Your task to perform on an android device: move a message to another label in the gmail app Image 0: 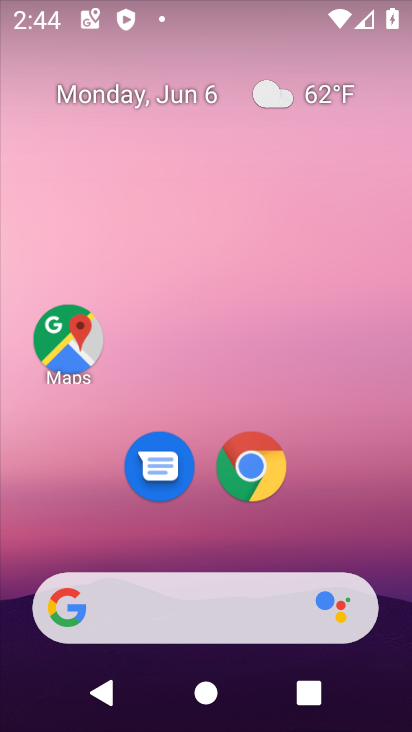
Step 0: drag from (208, 583) to (171, 323)
Your task to perform on an android device: move a message to another label in the gmail app Image 1: 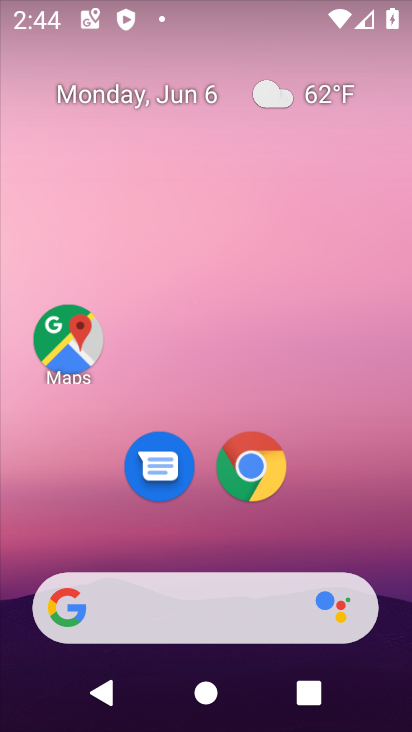
Step 1: drag from (244, 675) to (191, 283)
Your task to perform on an android device: move a message to another label in the gmail app Image 2: 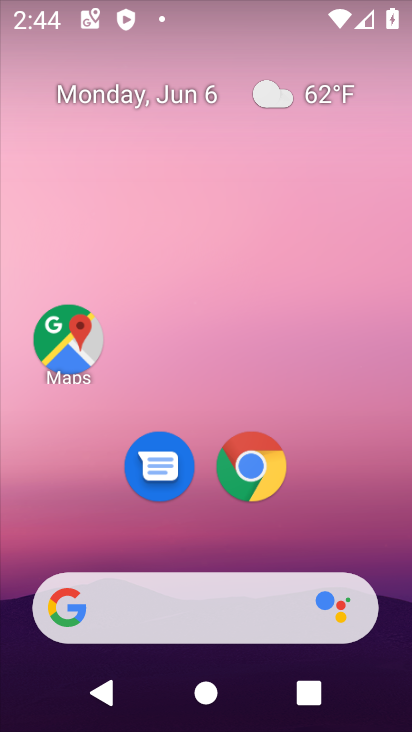
Step 2: drag from (233, 693) to (149, 44)
Your task to perform on an android device: move a message to another label in the gmail app Image 3: 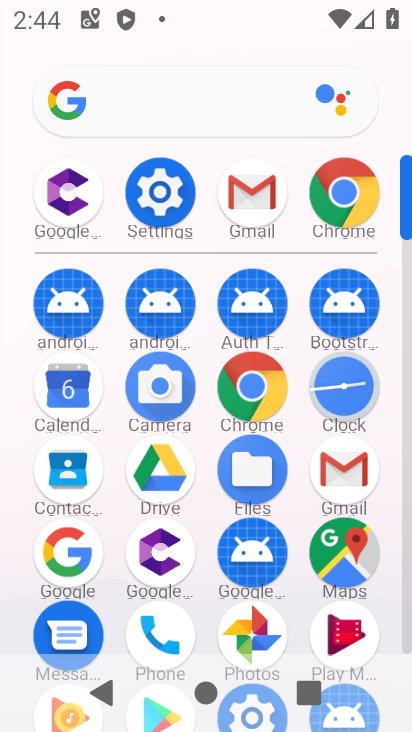
Step 3: click (239, 209)
Your task to perform on an android device: move a message to another label in the gmail app Image 4: 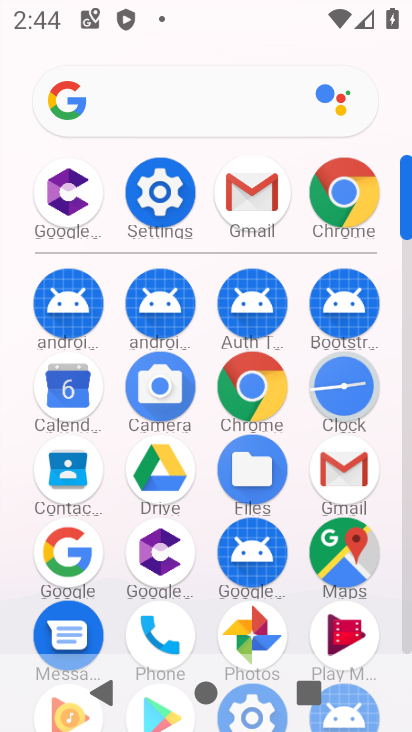
Step 4: click (238, 211)
Your task to perform on an android device: move a message to another label in the gmail app Image 5: 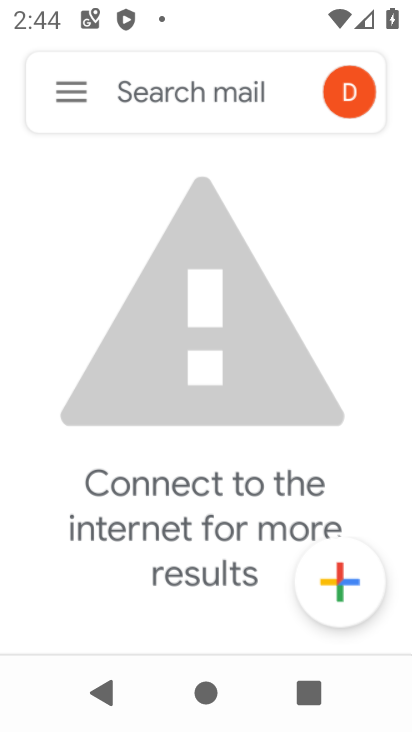
Step 5: click (236, 201)
Your task to perform on an android device: move a message to another label in the gmail app Image 6: 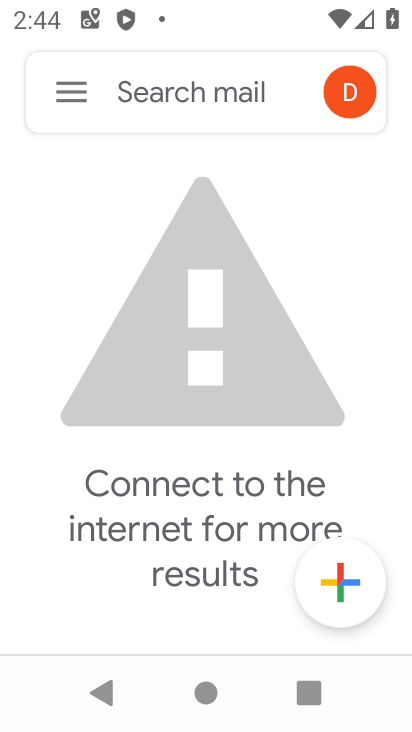
Step 6: click (86, 100)
Your task to perform on an android device: move a message to another label in the gmail app Image 7: 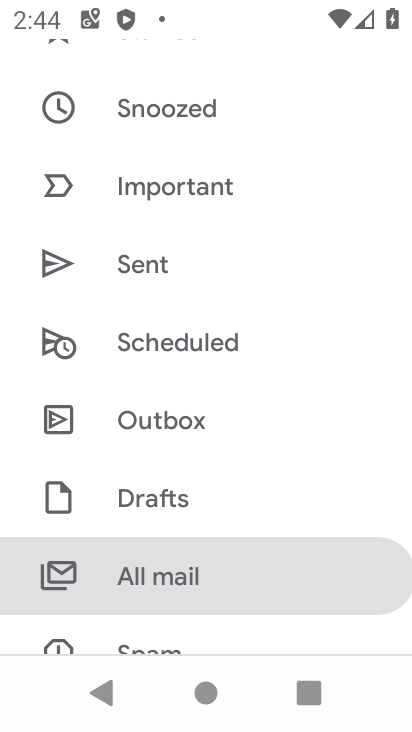
Step 7: click (184, 580)
Your task to perform on an android device: move a message to another label in the gmail app Image 8: 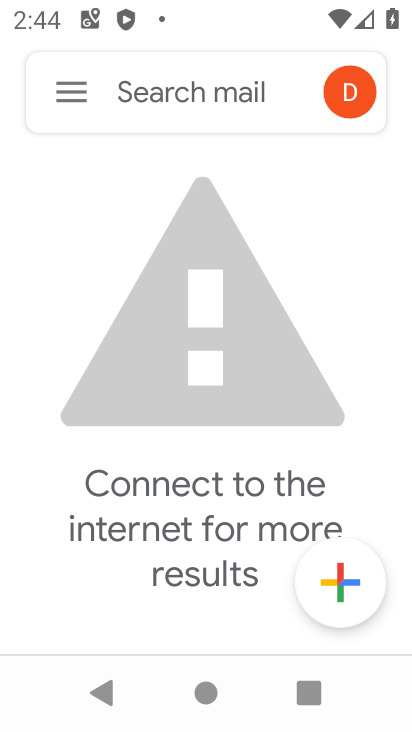
Step 8: task complete